Your task to perform on an android device: turn vacation reply on in the gmail app Image 0: 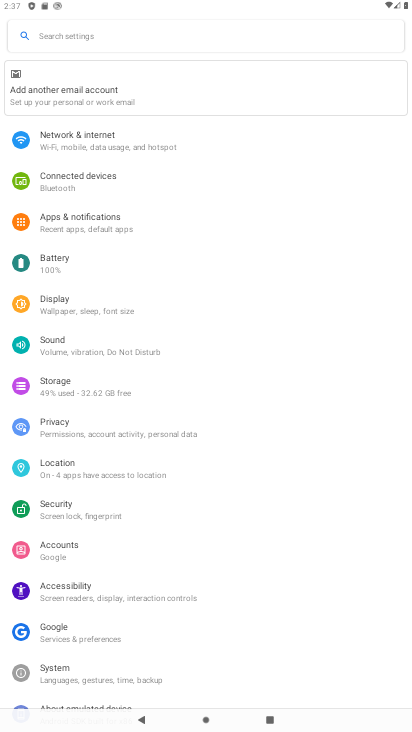
Step 0: press home button
Your task to perform on an android device: turn vacation reply on in the gmail app Image 1: 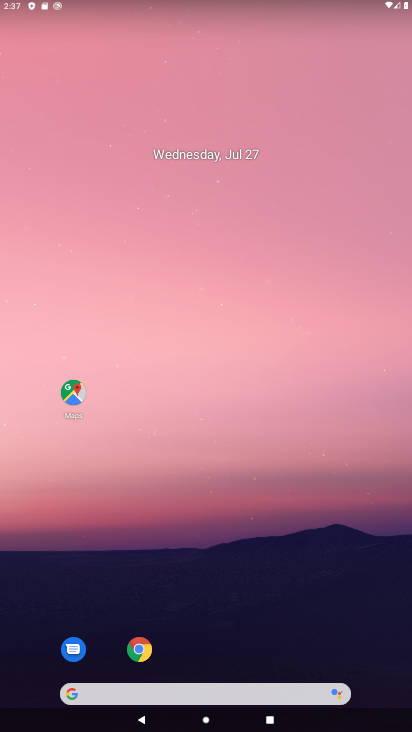
Step 1: drag from (358, 676) to (123, 18)
Your task to perform on an android device: turn vacation reply on in the gmail app Image 2: 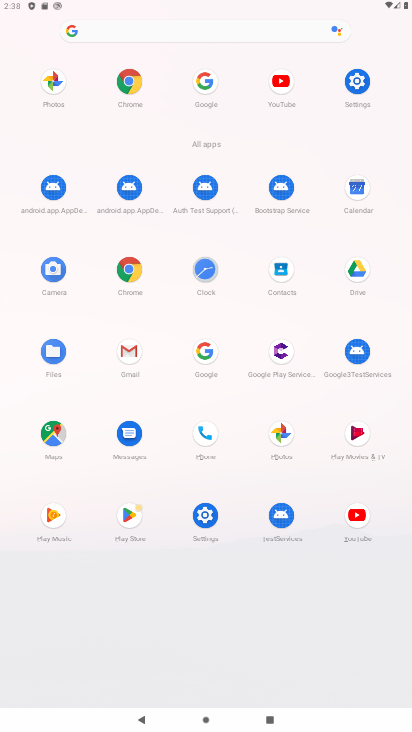
Step 2: click (131, 345)
Your task to perform on an android device: turn vacation reply on in the gmail app Image 3: 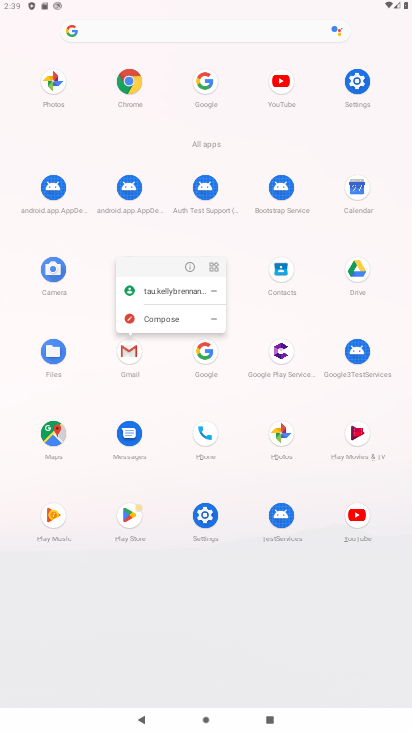
Step 3: click (131, 345)
Your task to perform on an android device: turn vacation reply on in the gmail app Image 4: 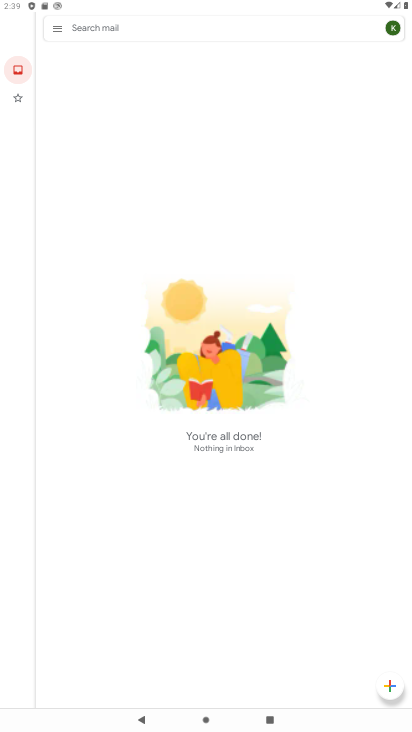
Step 4: click (51, 32)
Your task to perform on an android device: turn vacation reply on in the gmail app Image 5: 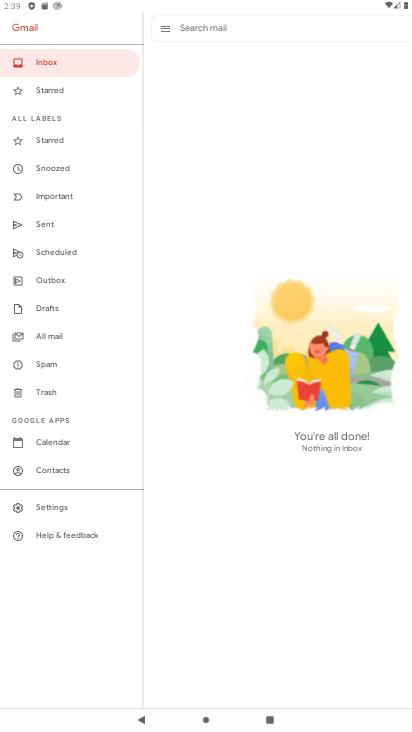
Step 5: click (54, 511)
Your task to perform on an android device: turn vacation reply on in the gmail app Image 6: 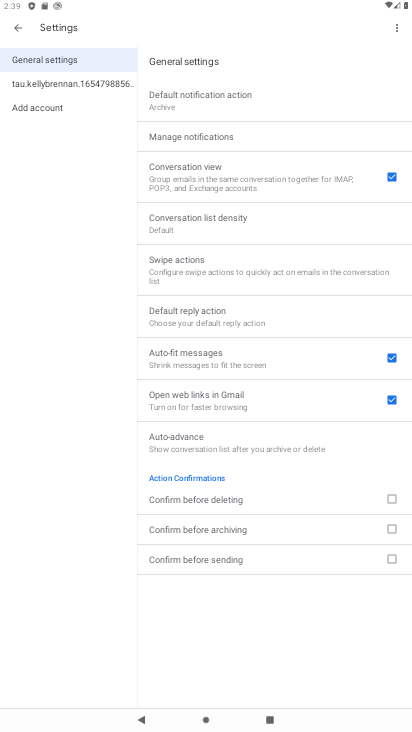
Step 6: click (80, 83)
Your task to perform on an android device: turn vacation reply on in the gmail app Image 7: 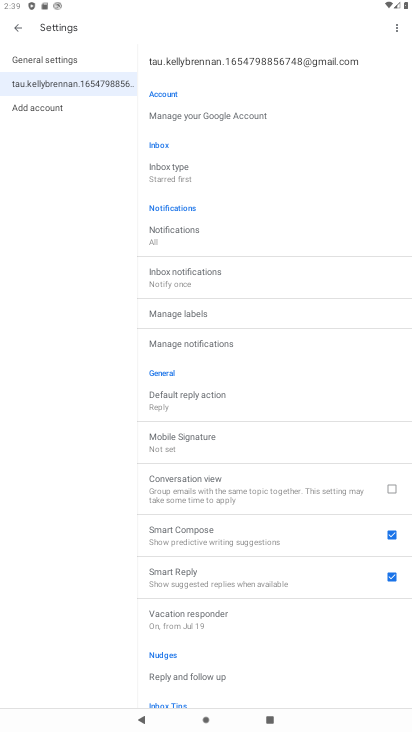
Step 7: click (175, 621)
Your task to perform on an android device: turn vacation reply on in the gmail app Image 8: 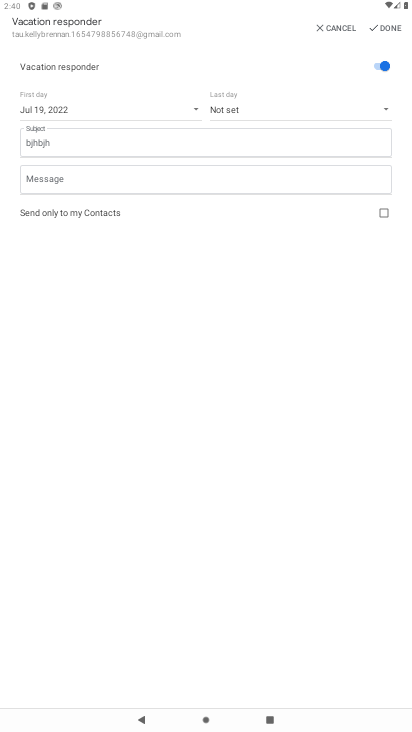
Step 8: task complete